Your task to perform on an android device: turn pop-ups on in chrome Image 0: 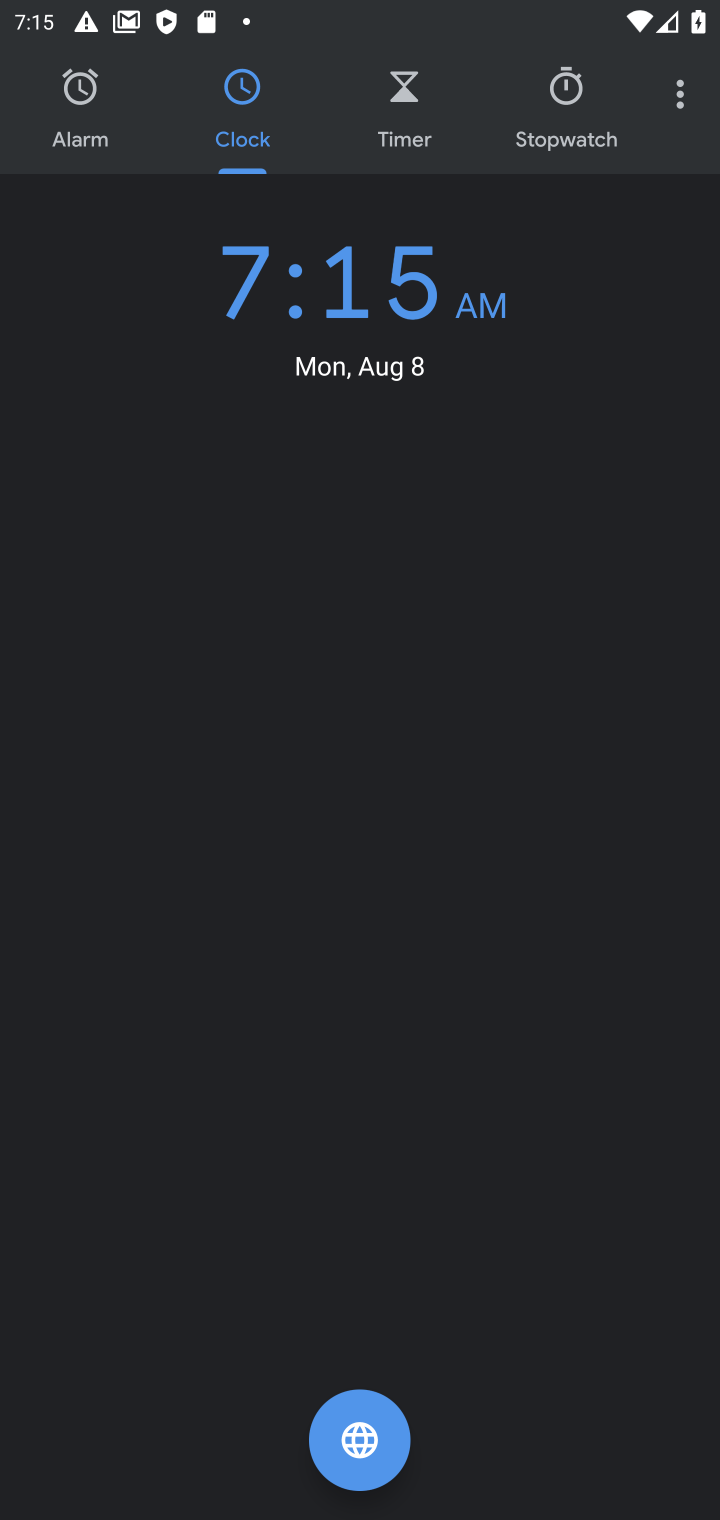
Step 0: press home button
Your task to perform on an android device: turn pop-ups on in chrome Image 1: 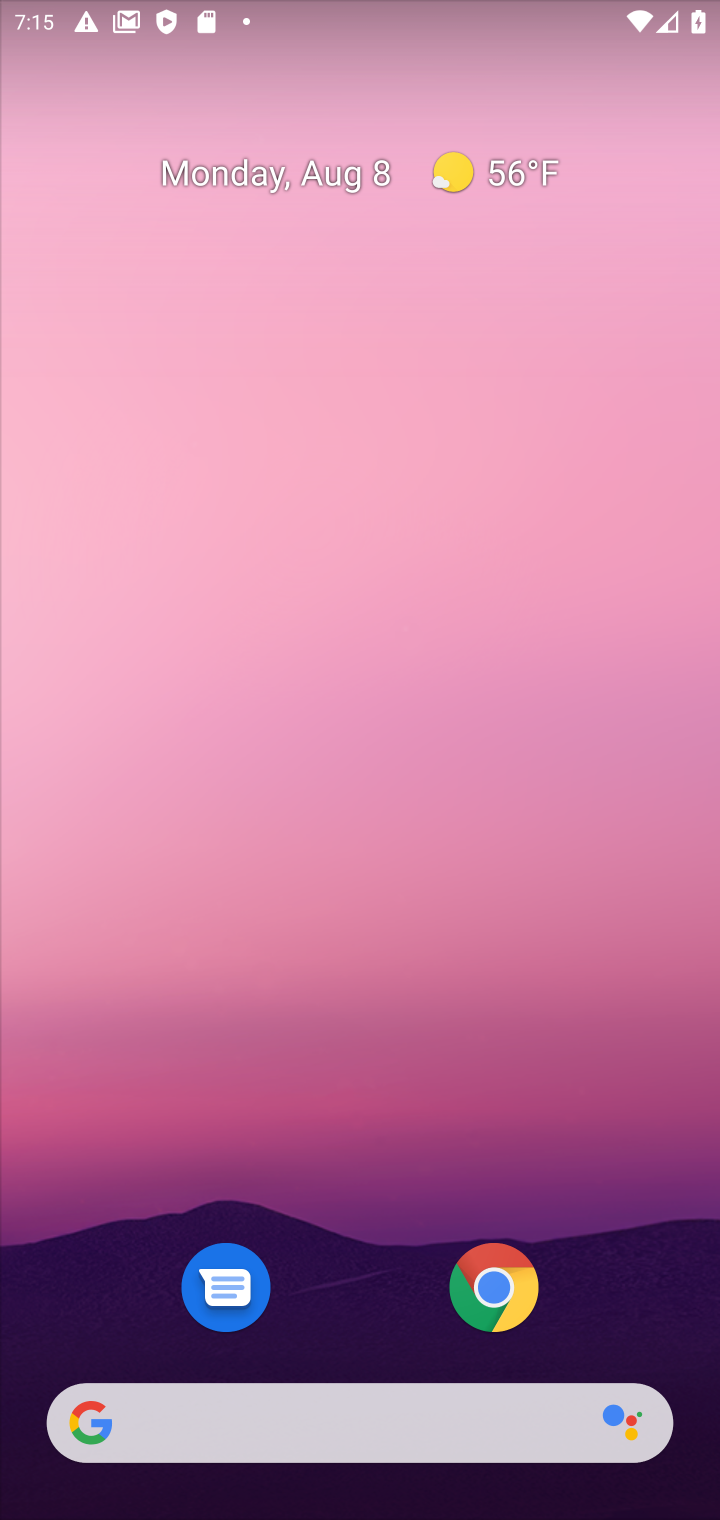
Step 1: drag from (413, 1181) to (417, 181)
Your task to perform on an android device: turn pop-ups on in chrome Image 2: 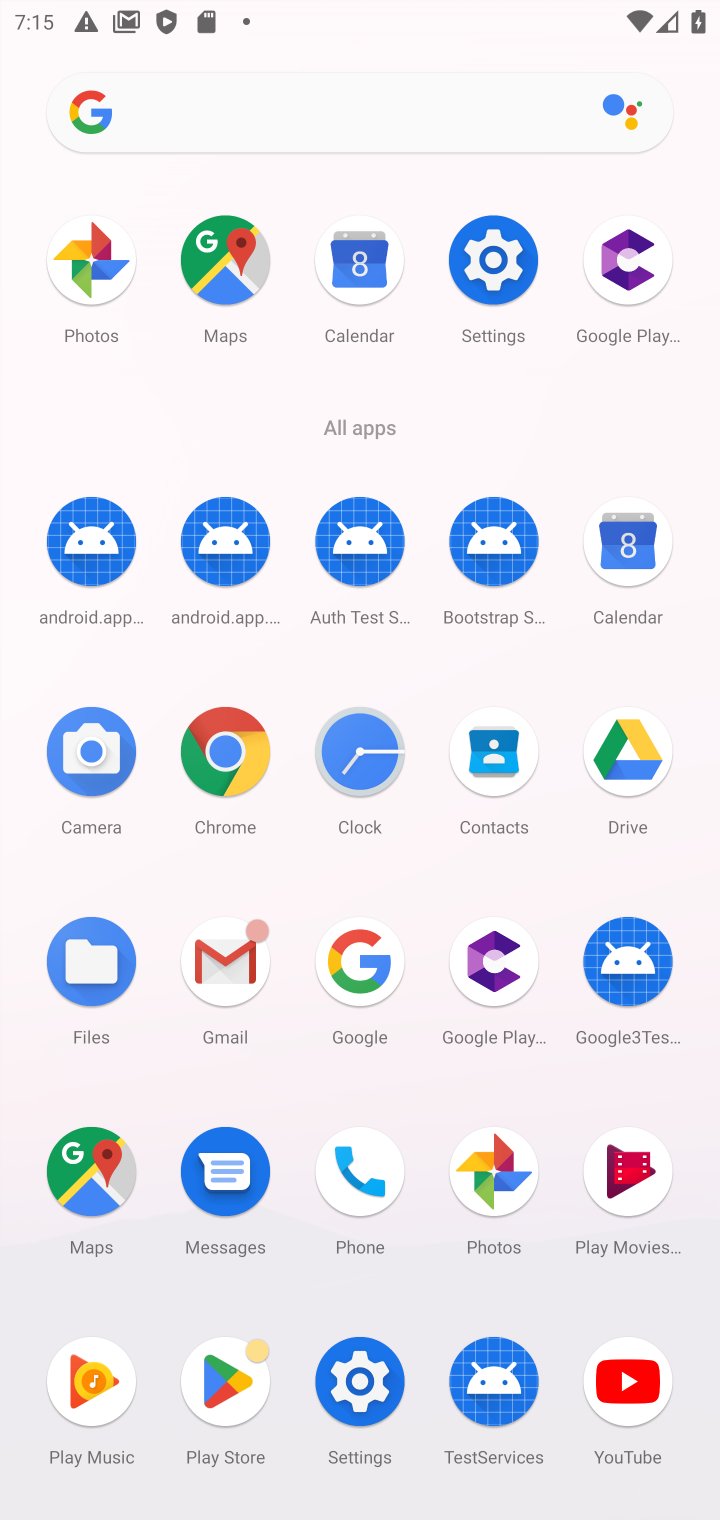
Step 2: click (233, 742)
Your task to perform on an android device: turn pop-ups on in chrome Image 3: 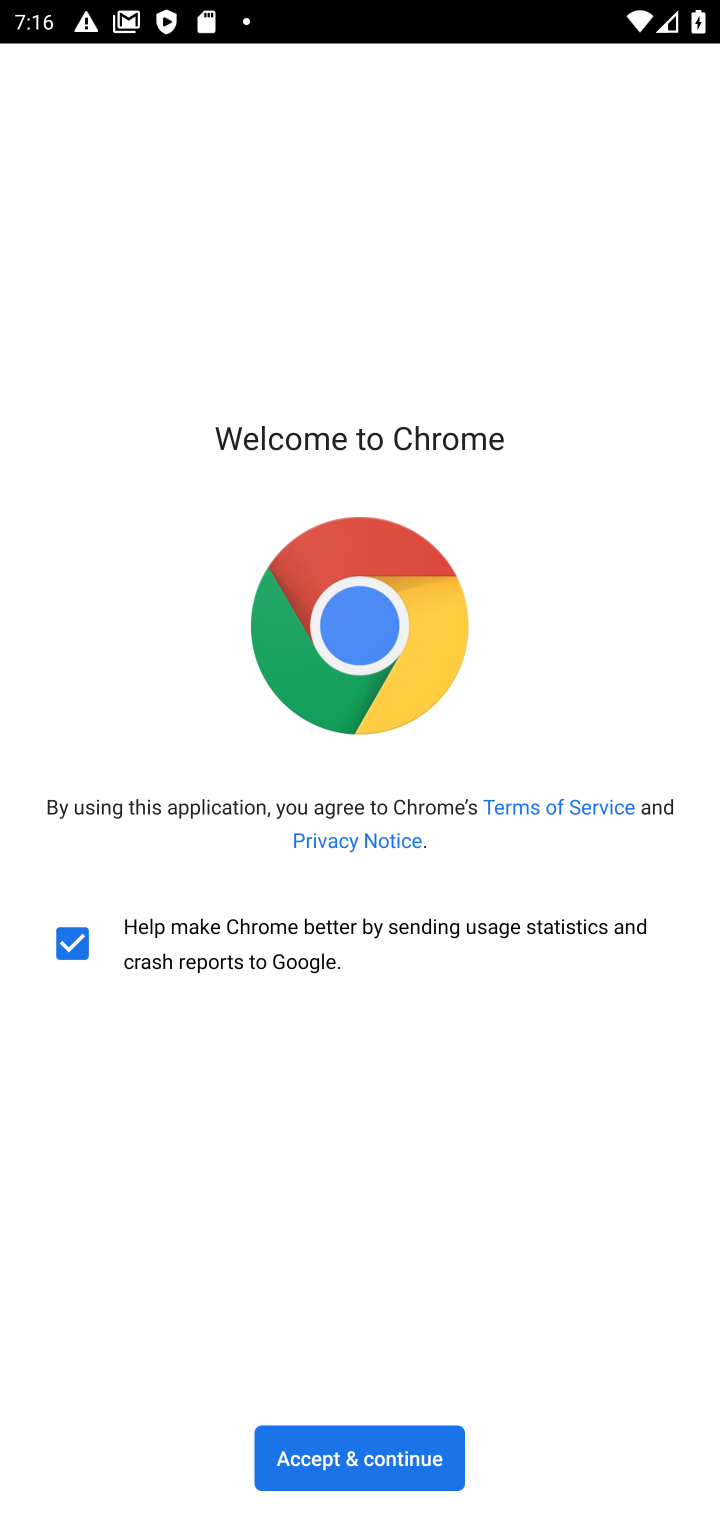
Step 3: click (427, 1439)
Your task to perform on an android device: turn pop-ups on in chrome Image 4: 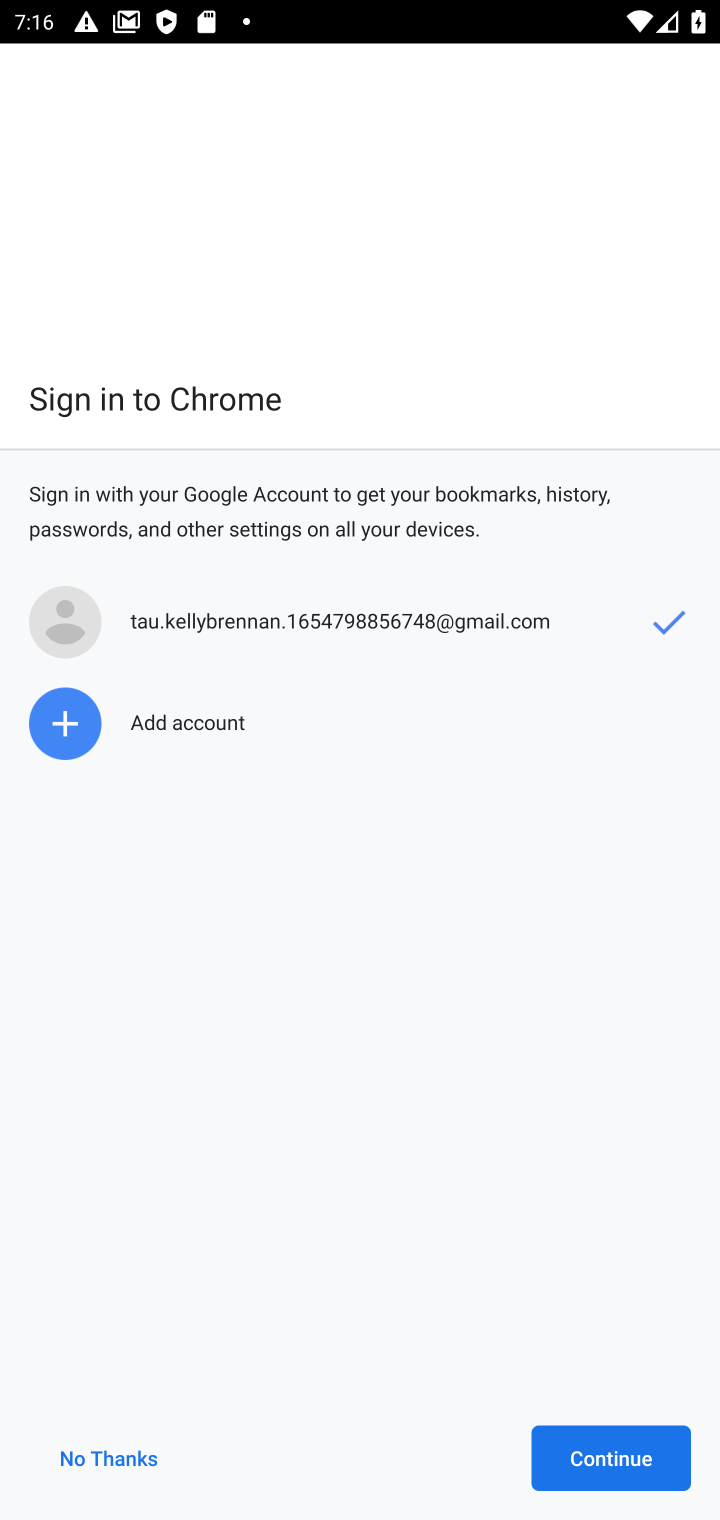
Step 4: click (644, 1451)
Your task to perform on an android device: turn pop-ups on in chrome Image 5: 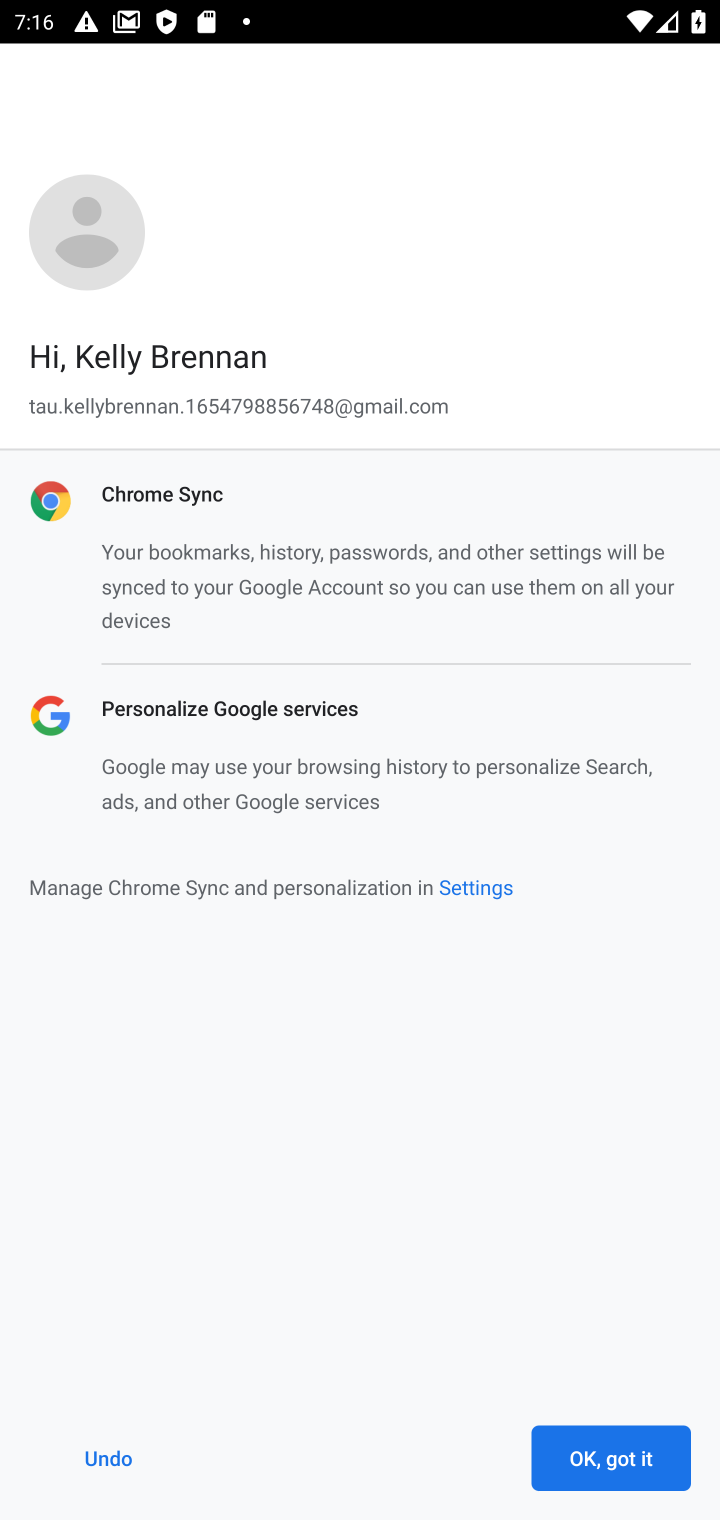
Step 5: click (619, 1462)
Your task to perform on an android device: turn pop-ups on in chrome Image 6: 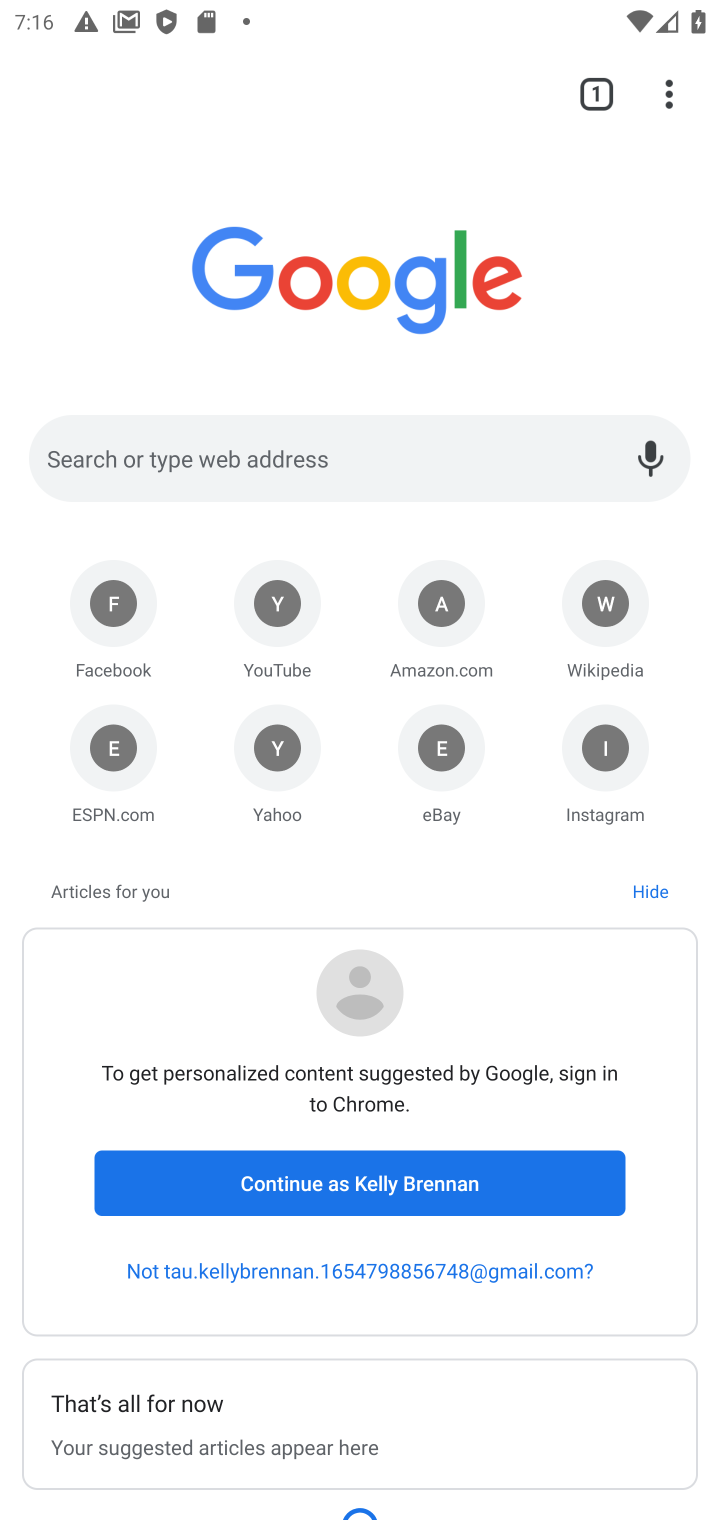
Step 6: task complete